Your task to perform on an android device: Open Chrome and go to settings Image 0: 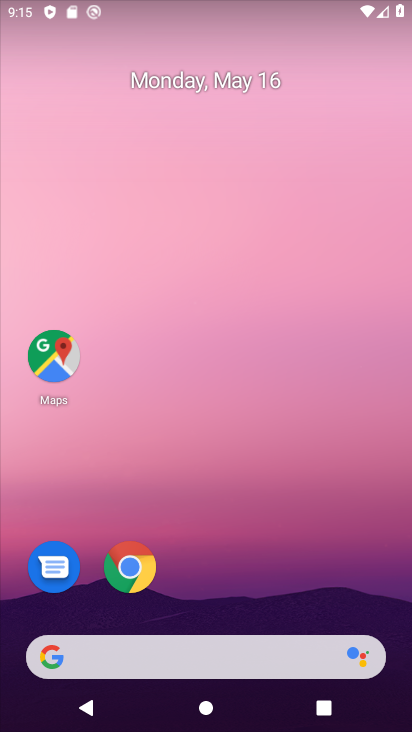
Step 0: drag from (276, 615) to (267, 98)
Your task to perform on an android device: Open Chrome and go to settings Image 1: 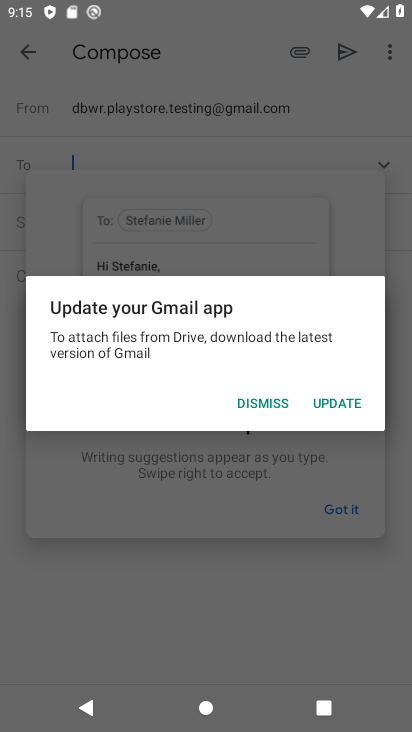
Step 1: press home button
Your task to perform on an android device: Open Chrome and go to settings Image 2: 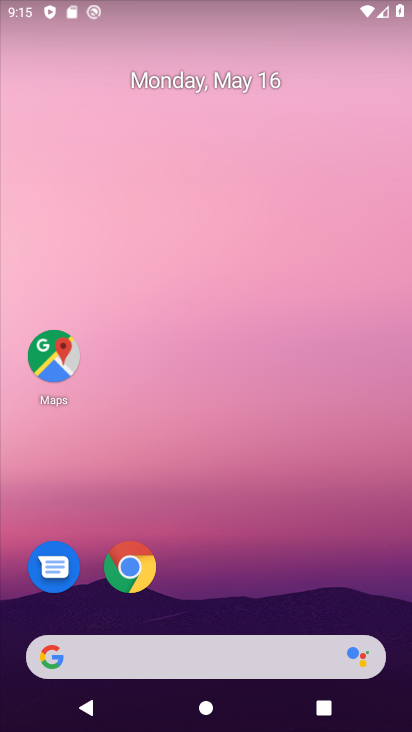
Step 2: drag from (297, 573) to (265, 227)
Your task to perform on an android device: Open Chrome and go to settings Image 3: 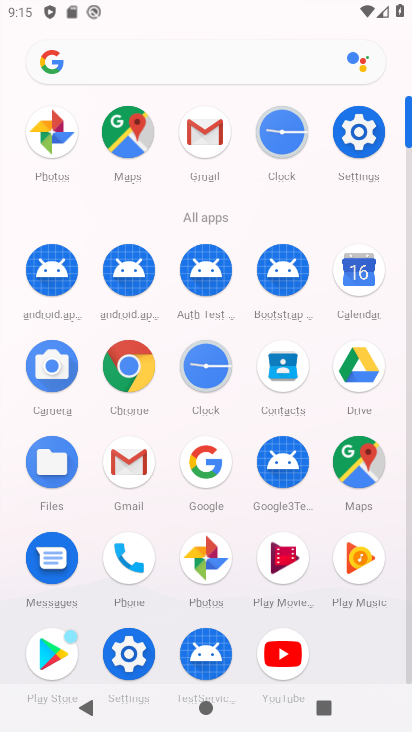
Step 3: click (117, 366)
Your task to perform on an android device: Open Chrome and go to settings Image 4: 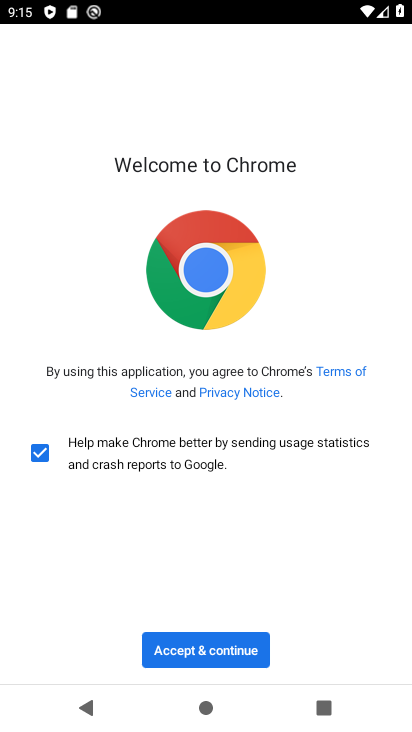
Step 4: click (210, 641)
Your task to perform on an android device: Open Chrome and go to settings Image 5: 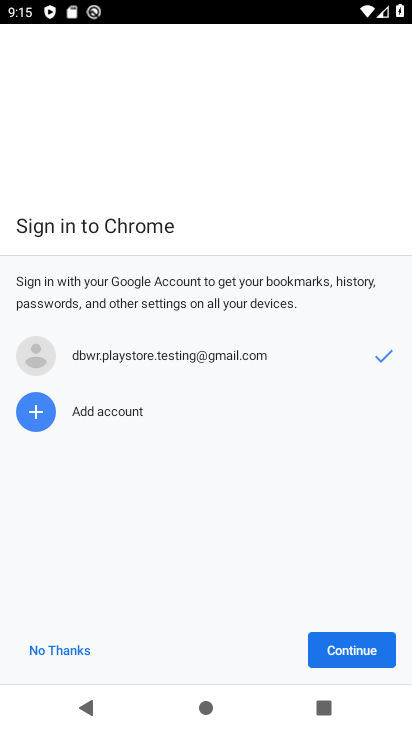
Step 5: click (337, 641)
Your task to perform on an android device: Open Chrome and go to settings Image 6: 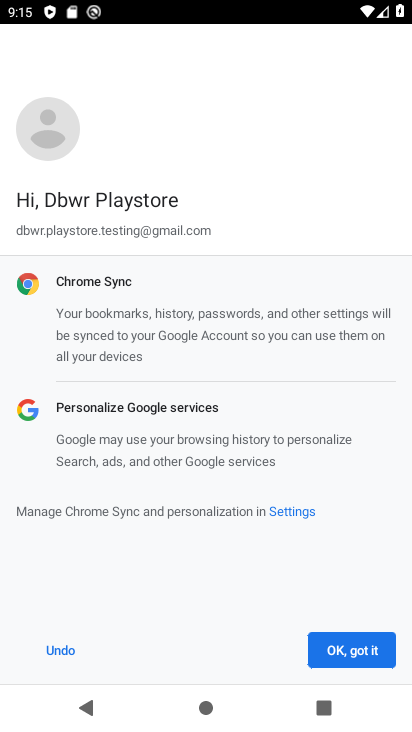
Step 6: click (348, 647)
Your task to perform on an android device: Open Chrome and go to settings Image 7: 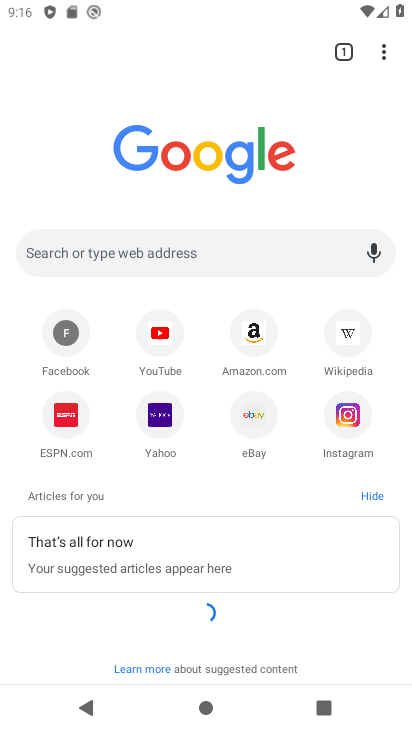
Step 7: click (374, 50)
Your task to perform on an android device: Open Chrome and go to settings Image 8: 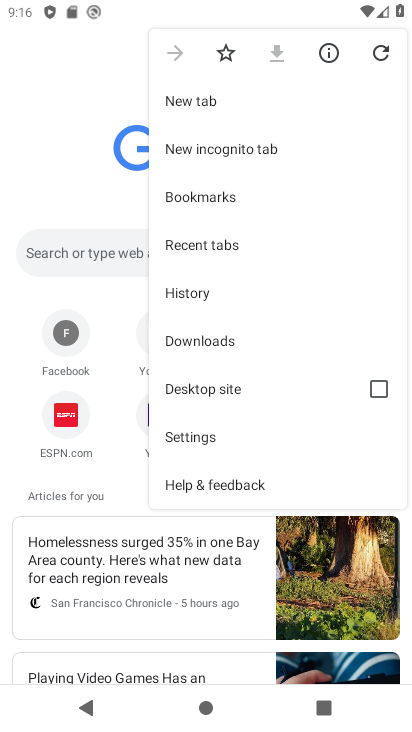
Step 8: click (215, 430)
Your task to perform on an android device: Open Chrome and go to settings Image 9: 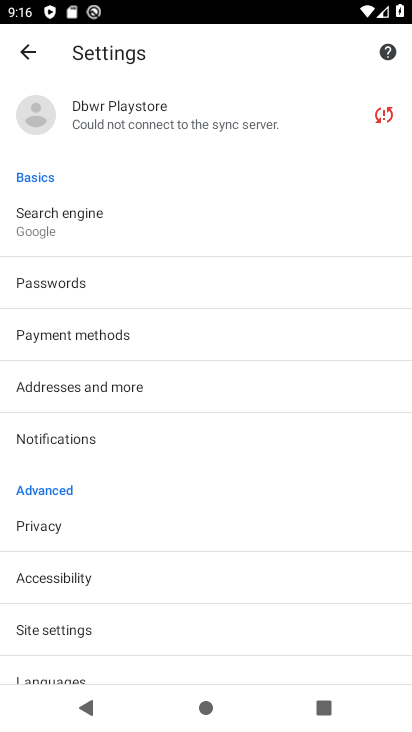
Step 9: task complete